Your task to perform on an android device: Open Youtube and go to the subscriptions tab Image 0: 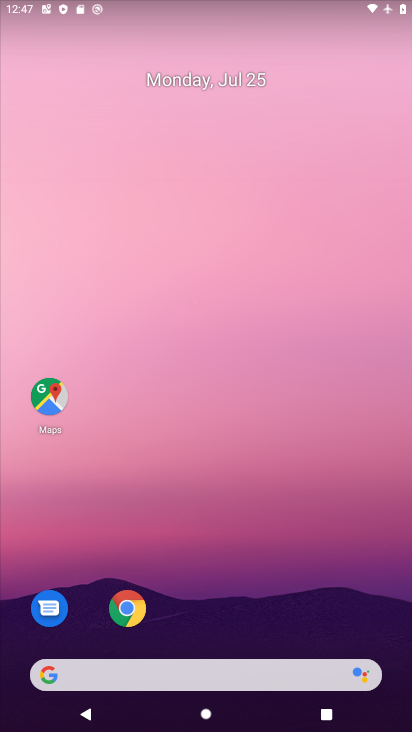
Step 0: click (347, 65)
Your task to perform on an android device: Open Youtube and go to the subscriptions tab Image 1: 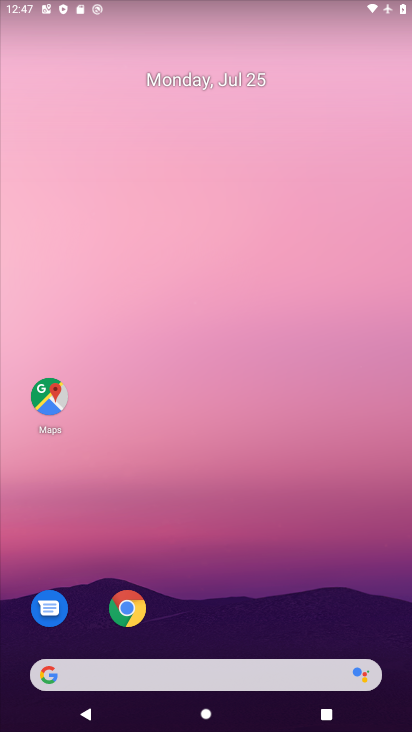
Step 1: drag from (288, 327) to (333, 104)
Your task to perform on an android device: Open Youtube and go to the subscriptions tab Image 2: 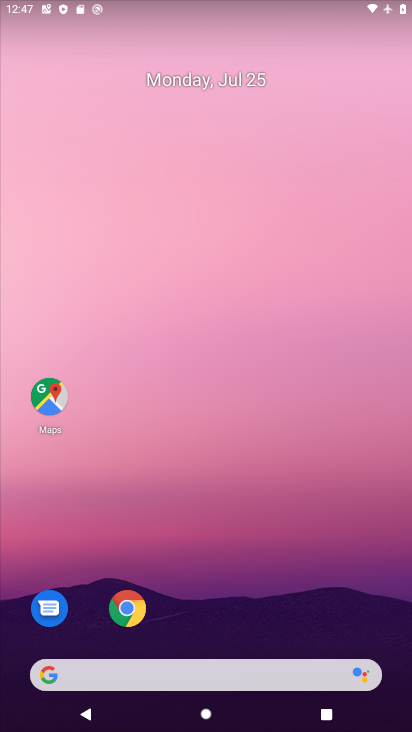
Step 2: drag from (232, 609) to (299, 148)
Your task to perform on an android device: Open Youtube and go to the subscriptions tab Image 3: 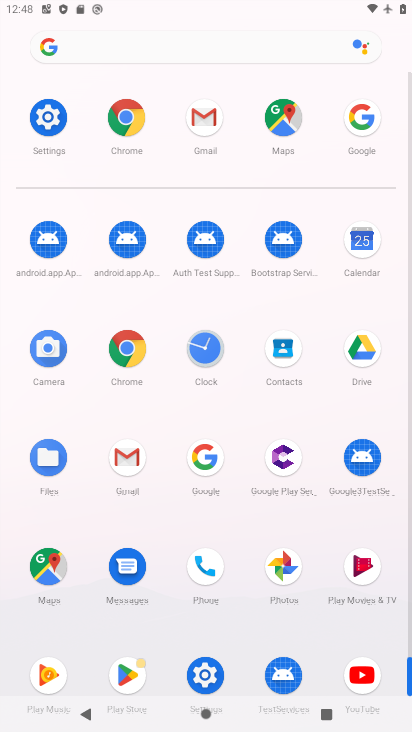
Step 3: click (365, 691)
Your task to perform on an android device: Open Youtube and go to the subscriptions tab Image 4: 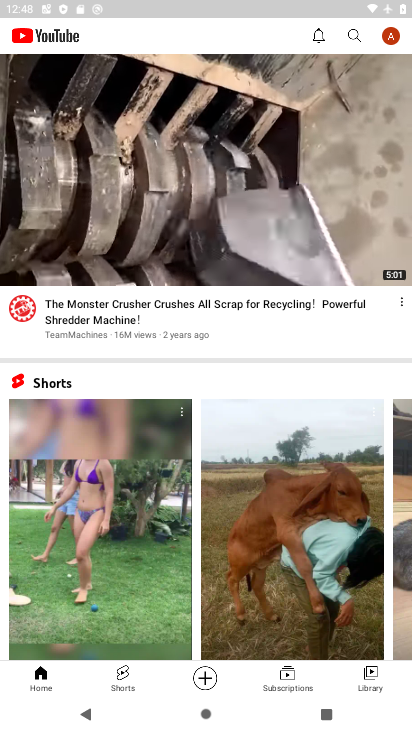
Step 4: click (290, 684)
Your task to perform on an android device: Open Youtube and go to the subscriptions tab Image 5: 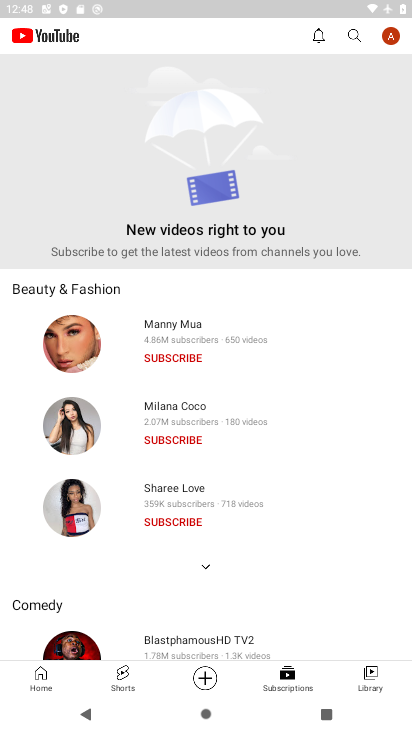
Step 5: task complete